Your task to perform on an android device: What's the weather? Image 0: 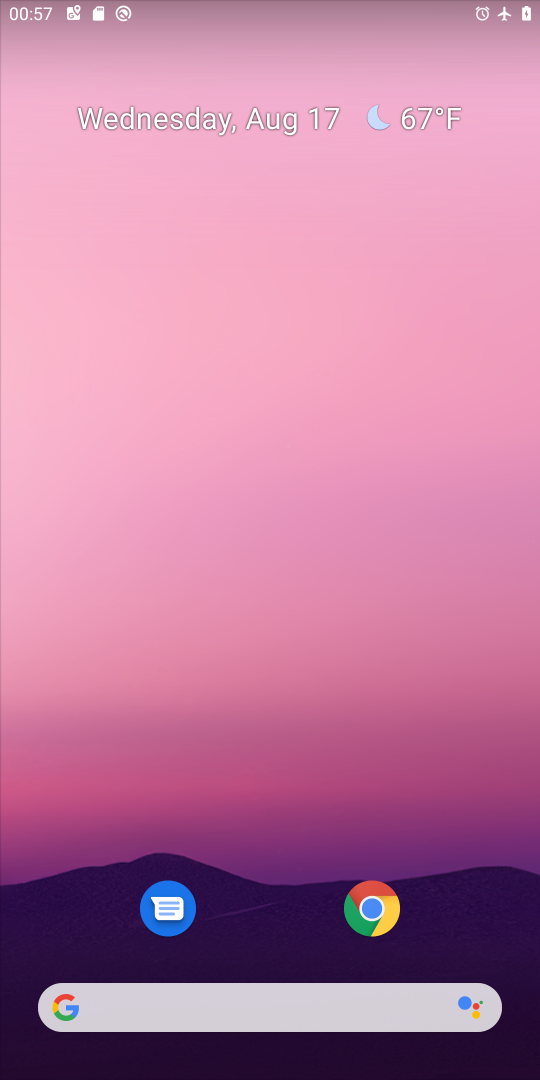
Step 0: drag from (252, 933) to (265, 217)
Your task to perform on an android device: What's the weather? Image 1: 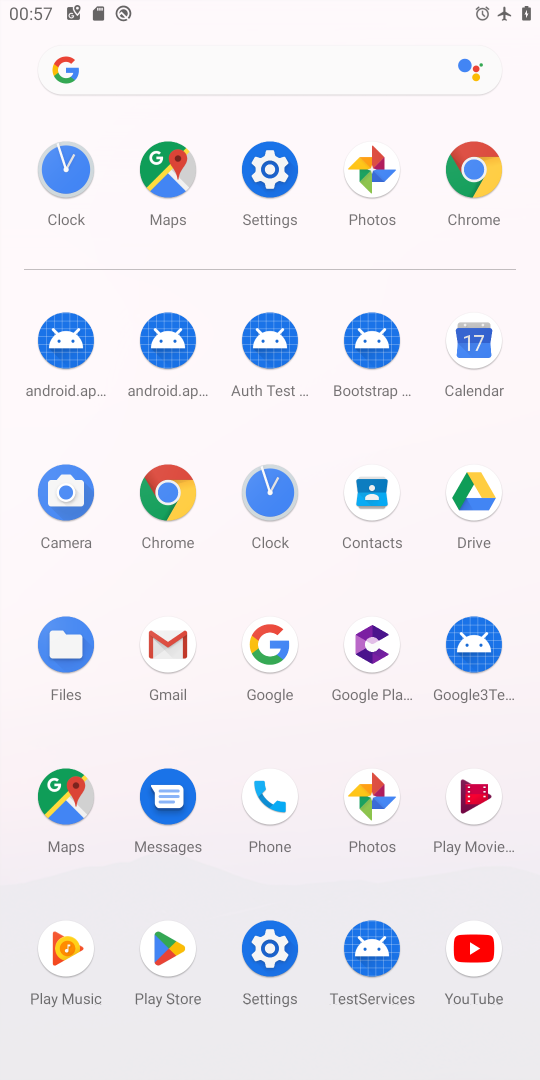
Step 1: click (274, 642)
Your task to perform on an android device: What's the weather? Image 2: 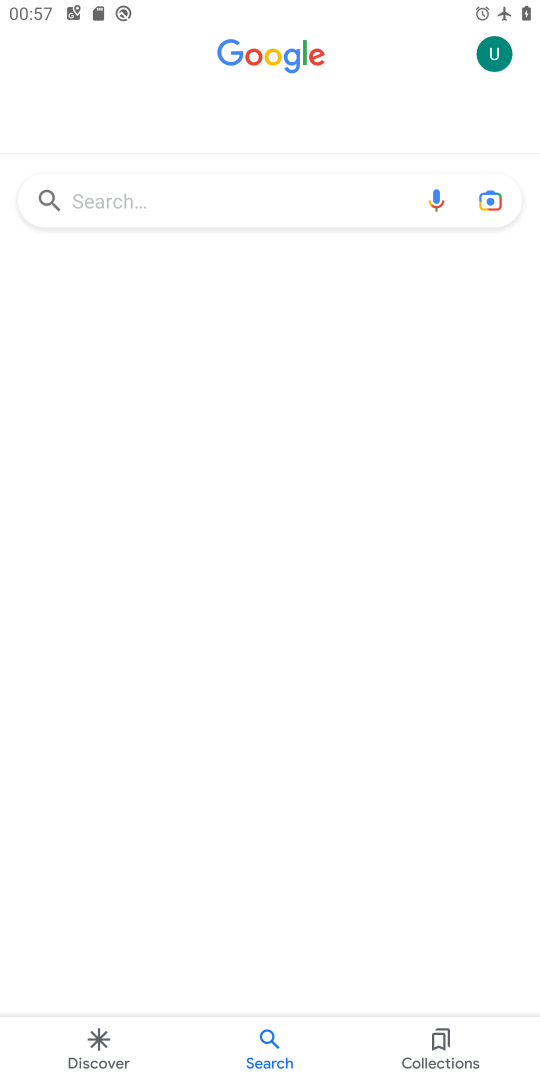
Step 2: click (201, 197)
Your task to perform on an android device: What's the weather? Image 3: 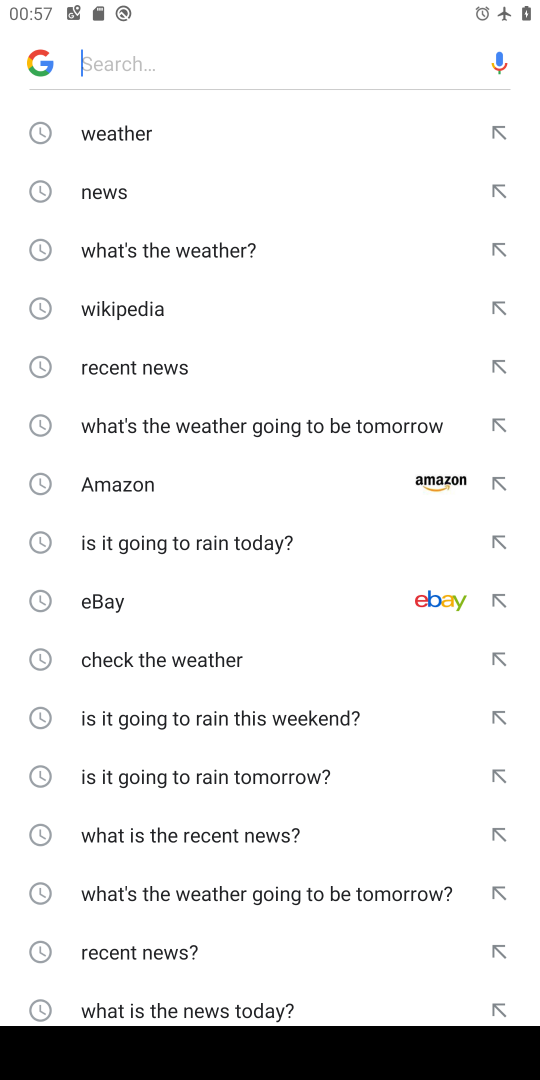
Step 3: click (142, 131)
Your task to perform on an android device: What's the weather? Image 4: 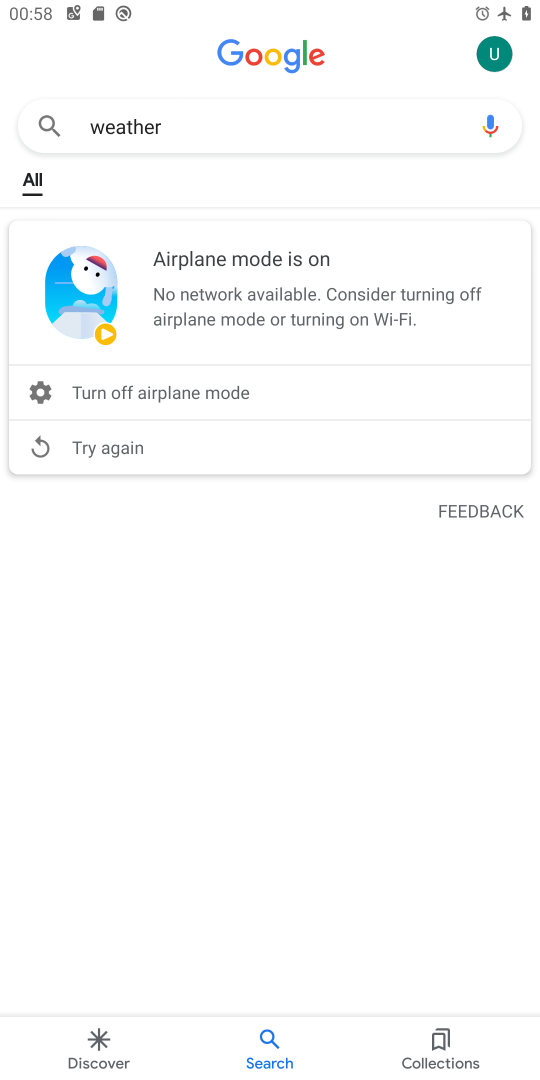
Step 4: task complete